Your task to perform on an android device: check data usage Image 0: 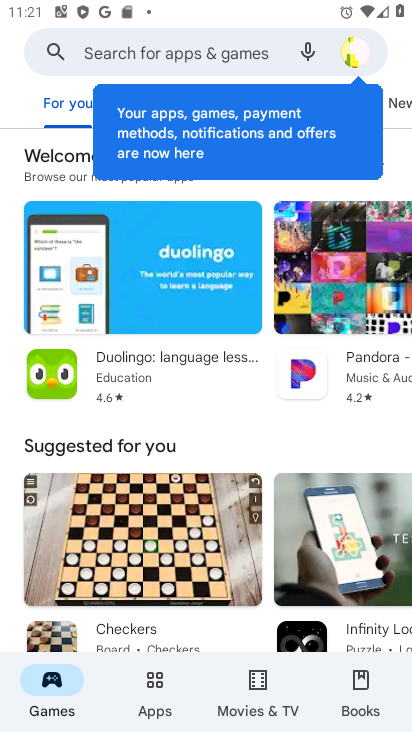
Step 0: press home button
Your task to perform on an android device: check data usage Image 1: 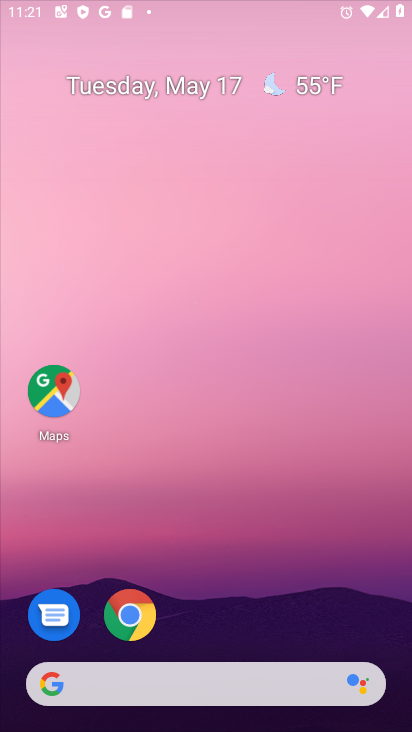
Step 1: drag from (285, 486) to (347, 70)
Your task to perform on an android device: check data usage Image 2: 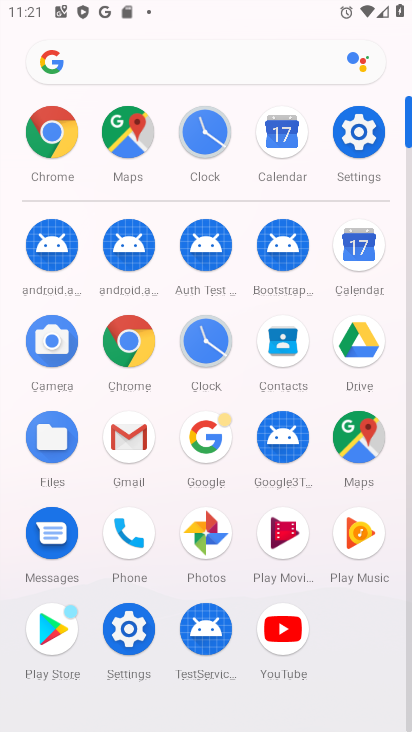
Step 2: click (355, 121)
Your task to perform on an android device: check data usage Image 3: 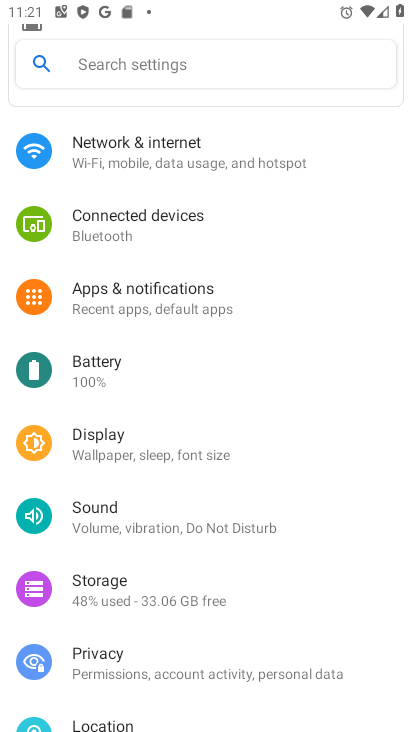
Step 3: click (222, 166)
Your task to perform on an android device: check data usage Image 4: 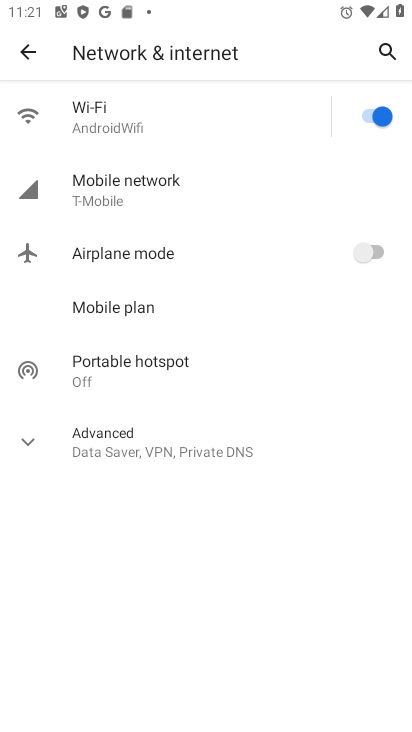
Step 4: click (185, 185)
Your task to perform on an android device: check data usage Image 5: 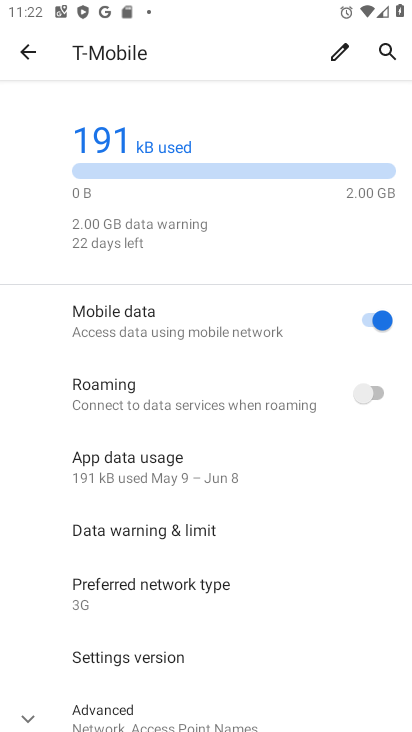
Step 5: task complete